Your task to perform on an android device: Open wifi settings Image 0: 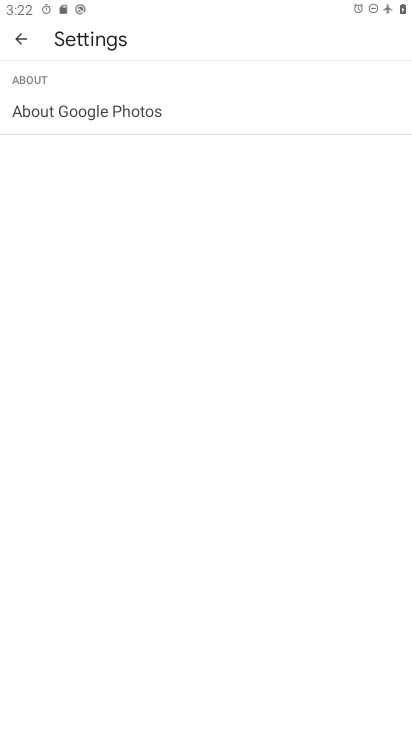
Step 0: press home button
Your task to perform on an android device: Open wifi settings Image 1: 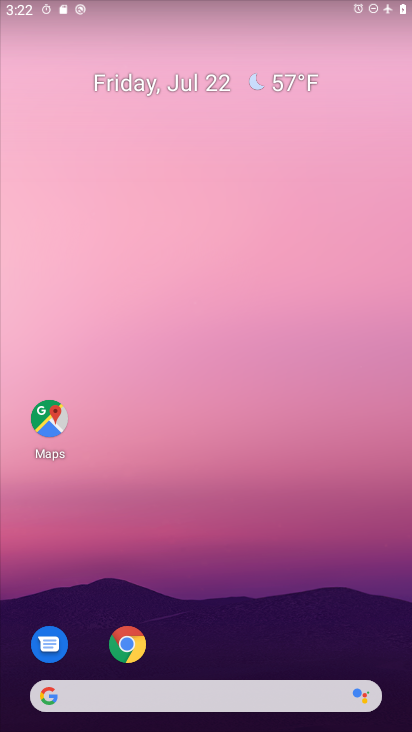
Step 1: drag from (197, 643) to (198, 223)
Your task to perform on an android device: Open wifi settings Image 2: 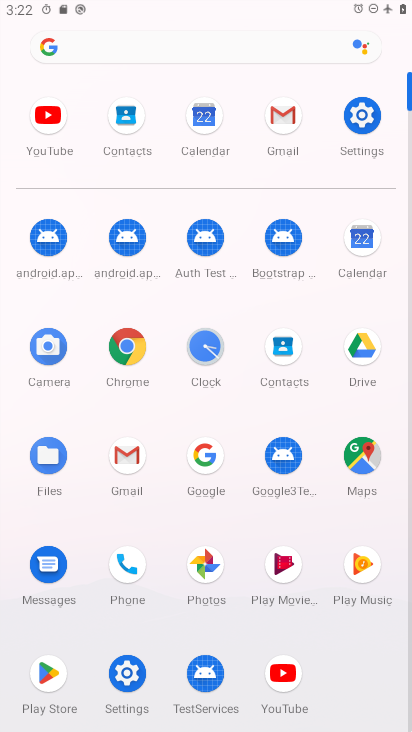
Step 2: click (352, 123)
Your task to perform on an android device: Open wifi settings Image 3: 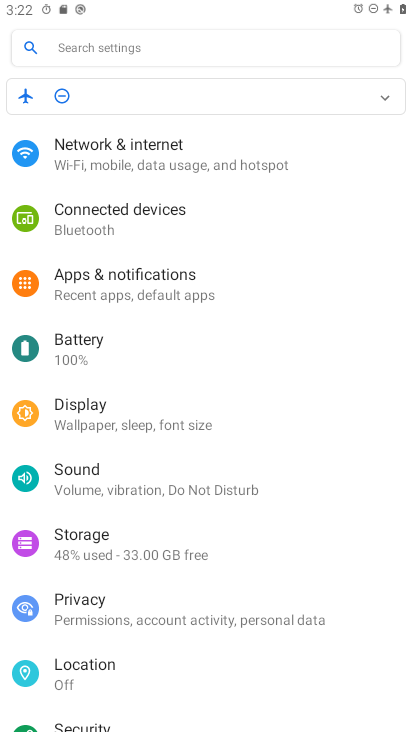
Step 3: click (137, 143)
Your task to perform on an android device: Open wifi settings Image 4: 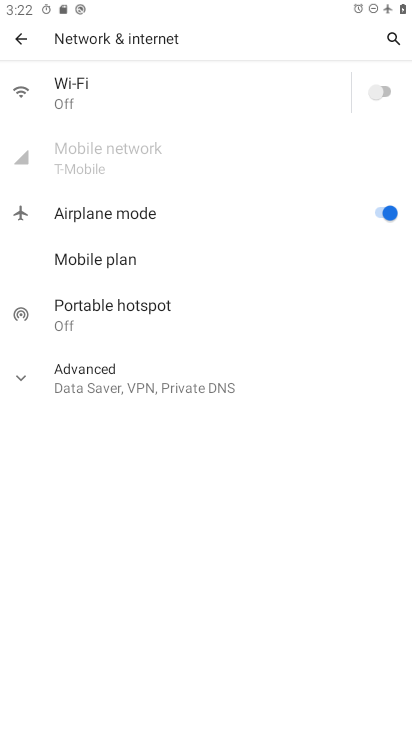
Step 4: click (111, 107)
Your task to perform on an android device: Open wifi settings Image 5: 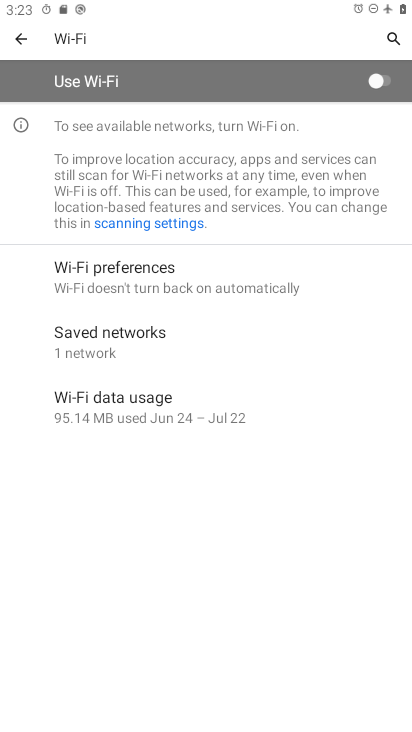
Step 5: task complete